Your task to perform on an android device: turn off airplane mode Image 0: 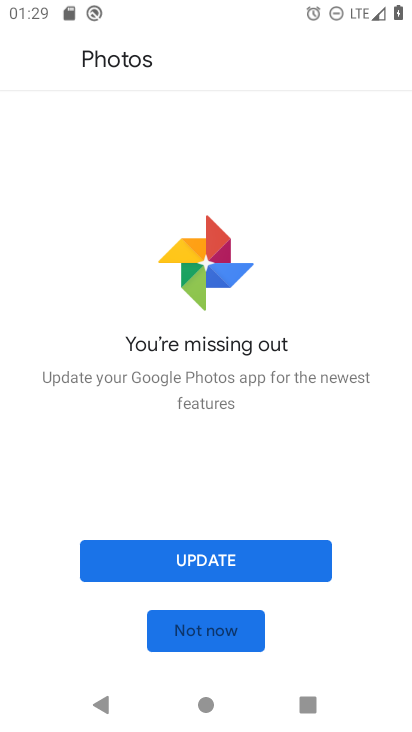
Step 0: click (225, 560)
Your task to perform on an android device: turn off airplane mode Image 1: 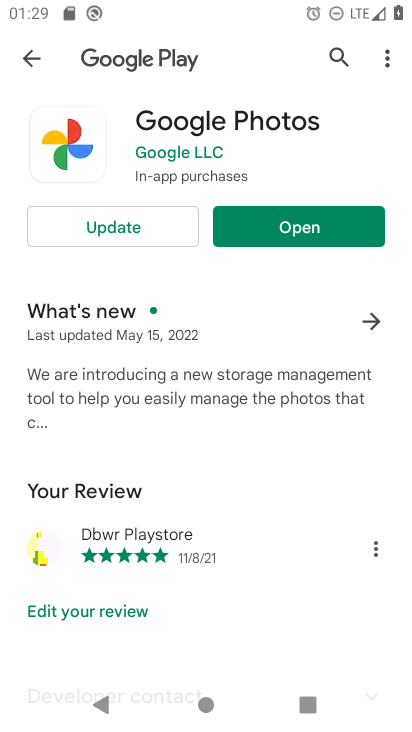
Step 1: press home button
Your task to perform on an android device: turn off airplane mode Image 2: 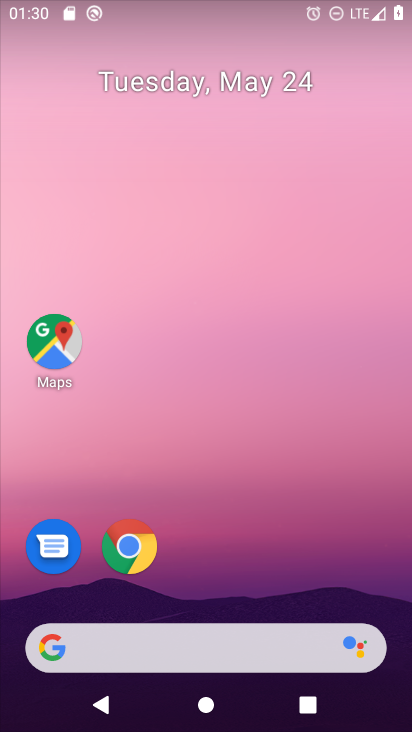
Step 2: drag from (313, 655) to (326, 97)
Your task to perform on an android device: turn off airplane mode Image 3: 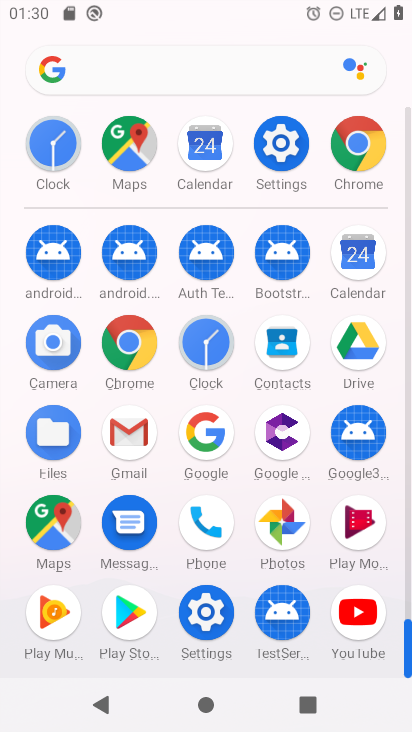
Step 3: click (288, 150)
Your task to perform on an android device: turn off airplane mode Image 4: 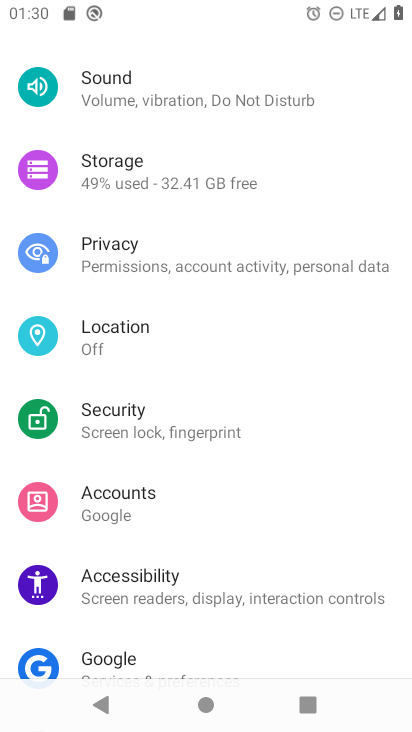
Step 4: drag from (335, 242) to (251, 716)
Your task to perform on an android device: turn off airplane mode Image 5: 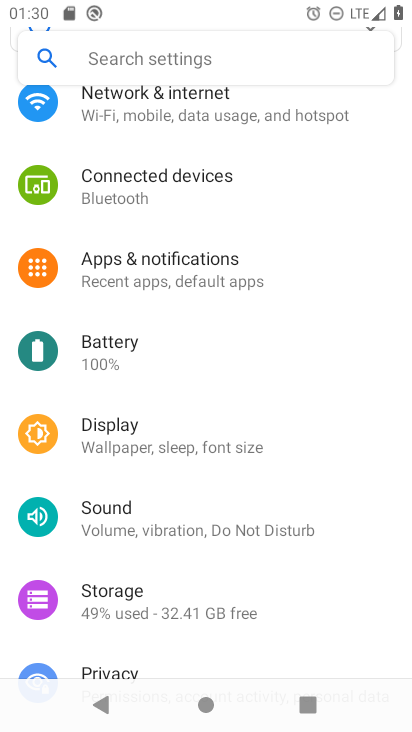
Step 5: drag from (180, 290) to (220, 684)
Your task to perform on an android device: turn off airplane mode Image 6: 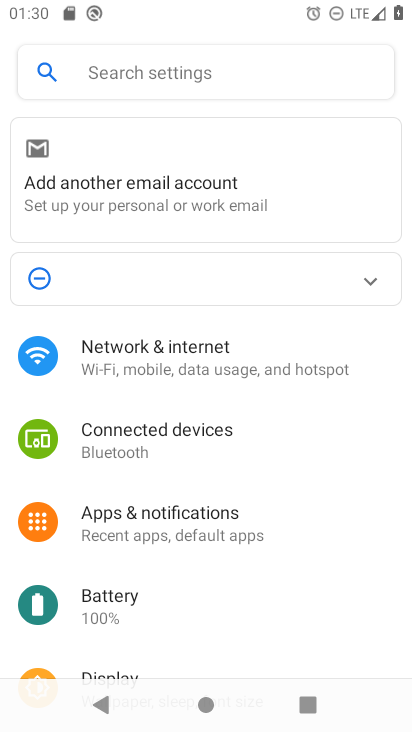
Step 6: click (252, 365)
Your task to perform on an android device: turn off airplane mode Image 7: 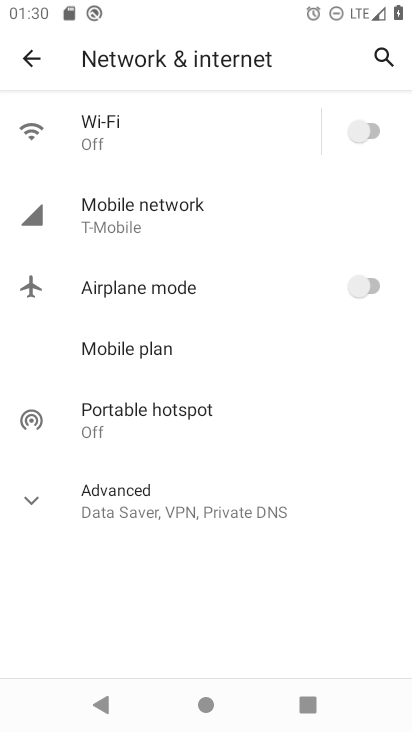
Step 7: task complete